Your task to perform on an android device: find photos in the google photos app Image 0: 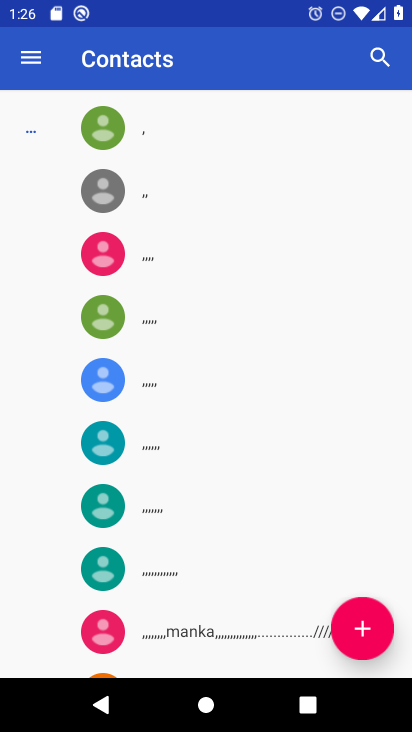
Step 0: press home button
Your task to perform on an android device: find photos in the google photos app Image 1: 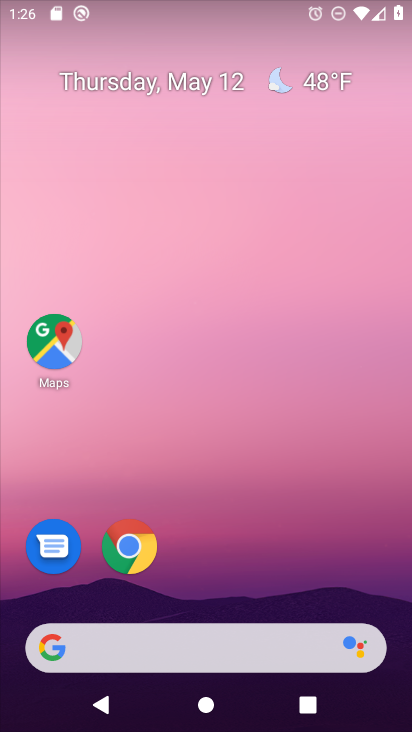
Step 1: drag from (222, 654) to (385, 152)
Your task to perform on an android device: find photos in the google photos app Image 2: 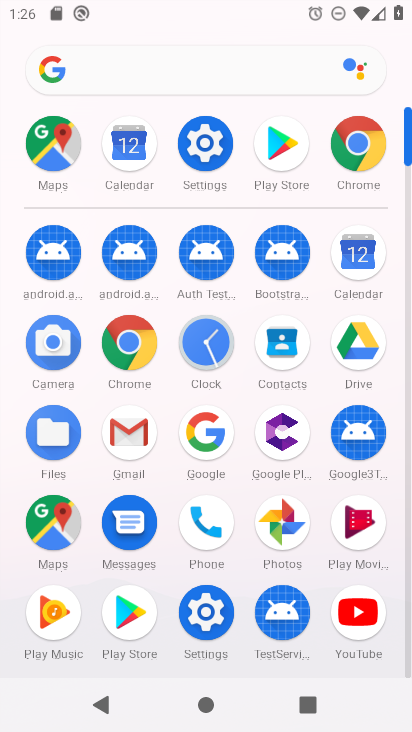
Step 2: click (283, 527)
Your task to perform on an android device: find photos in the google photos app Image 3: 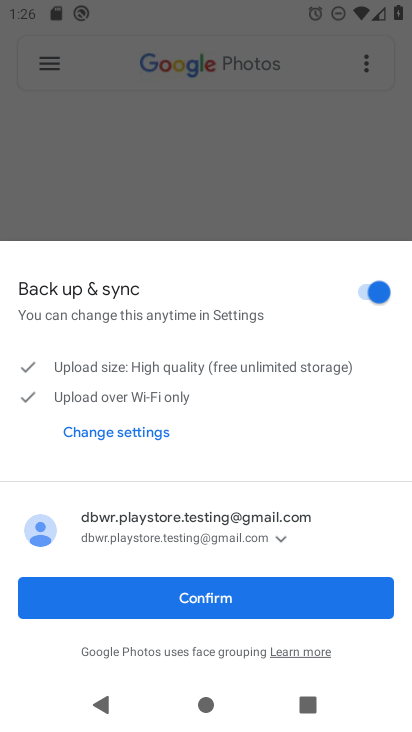
Step 3: click (222, 604)
Your task to perform on an android device: find photos in the google photos app Image 4: 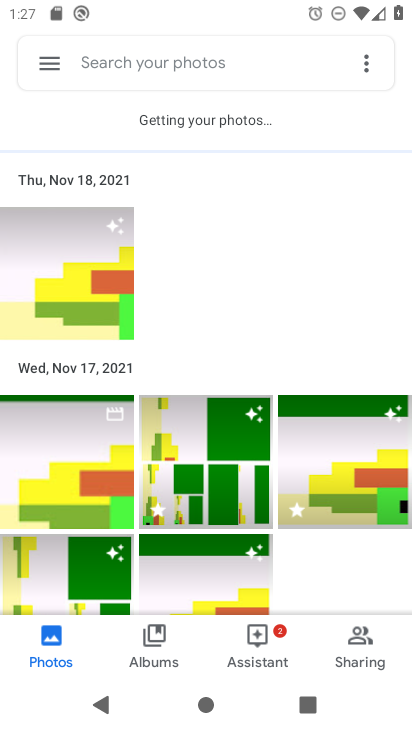
Step 4: task complete